Your task to perform on an android device: Open maps Image 0: 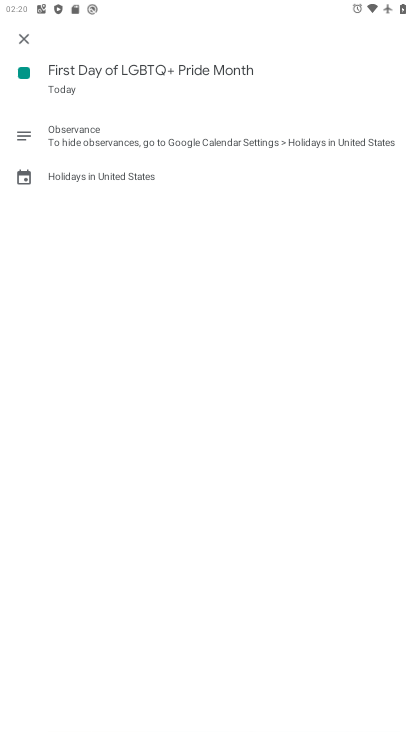
Step 0: press home button
Your task to perform on an android device: Open maps Image 1: 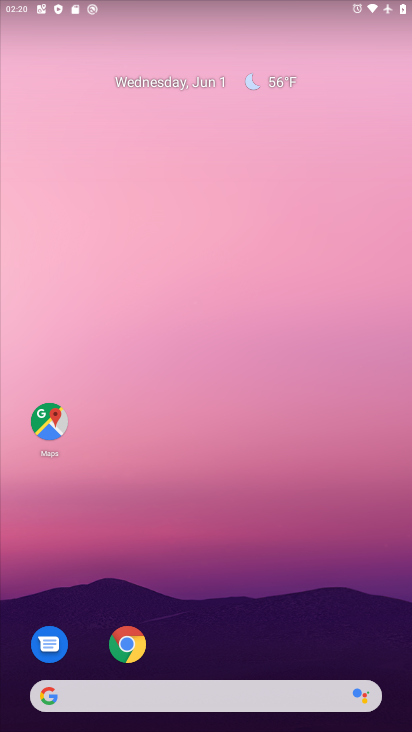
Step 1: click (48, 439)
Your task to perform on an android device: Open maps Image 2: 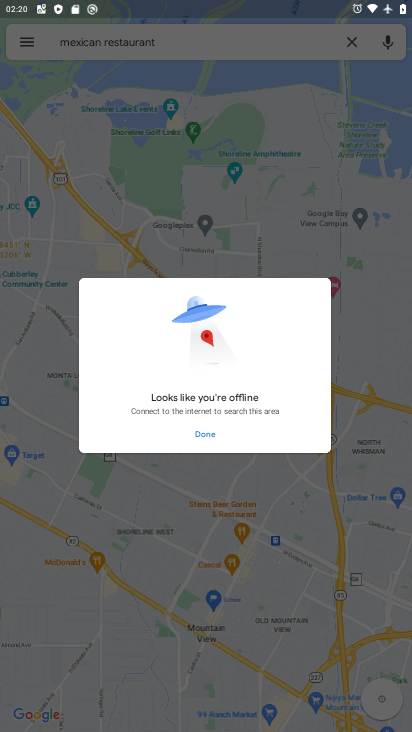
Step 2: click (210, 434)
Your task to perform on an android device: Open maps Image 3: 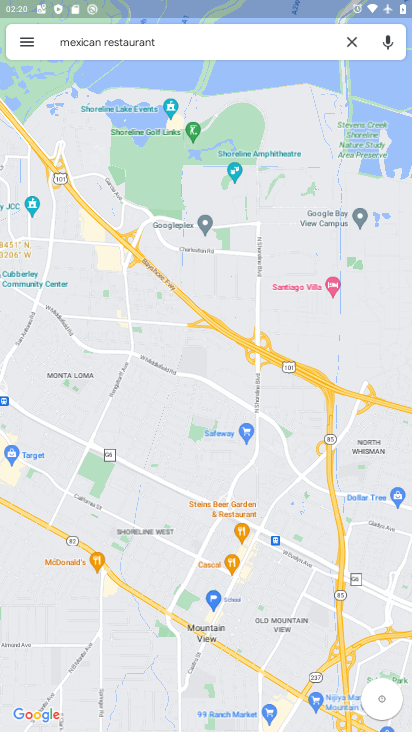
Step 3: task complete